Your task to perform on an android device: Open internet settings Image 0: 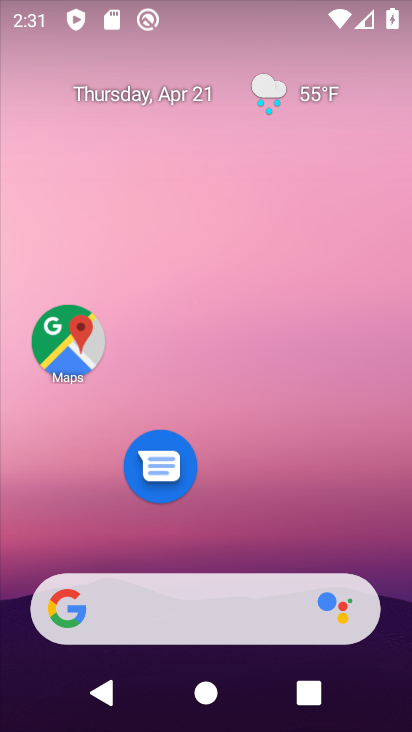
Step 0: drag from (237, 557) to (220, 57)
Your task to perform on an android device: Open internet settings Image 1: 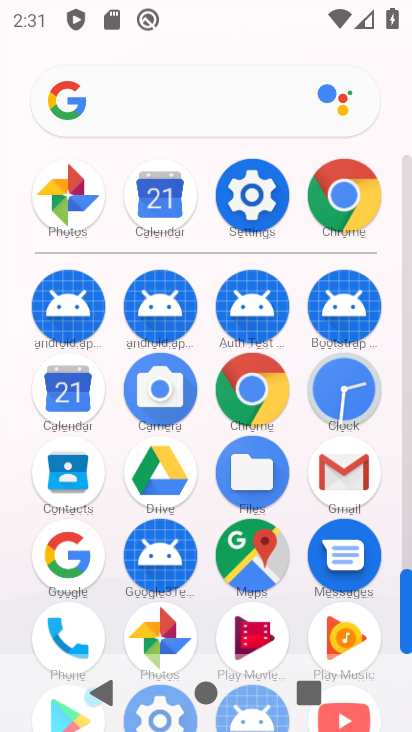
Step 1: click (264, 204)
Your task to perform on an android device: Open internet settings Image 2: 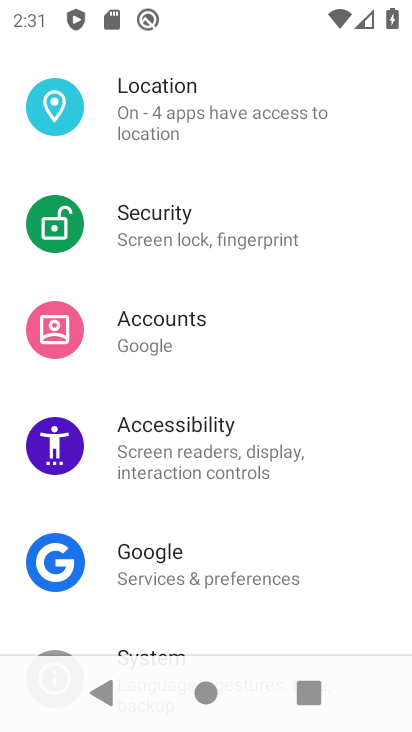
Step 2: click (264, 204)
Your task to perform on an android device: Open internet settings Image 3: 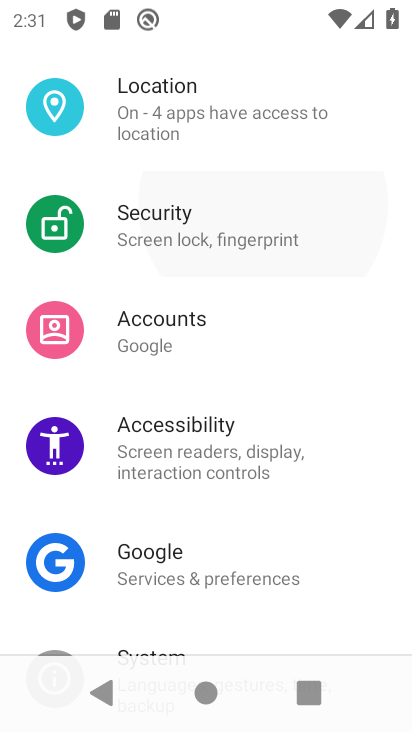
Step 3: drag from (248, 176) to (294, 611)
Your task to perform on an android device: Open internet settings Image 4: 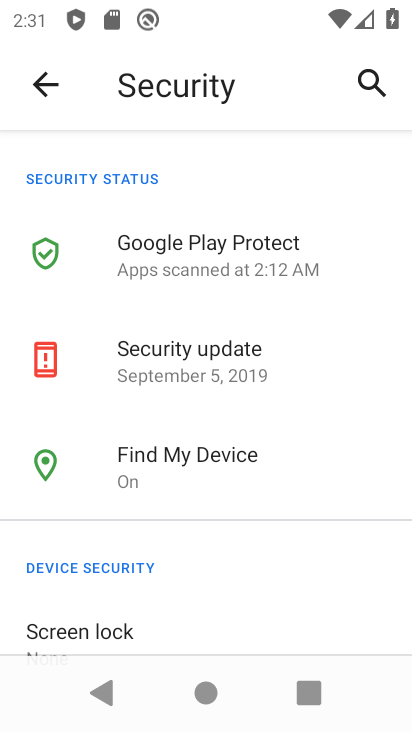
Step 4: press back button
Your task to perform on an android device: Open internet settings Image 5: 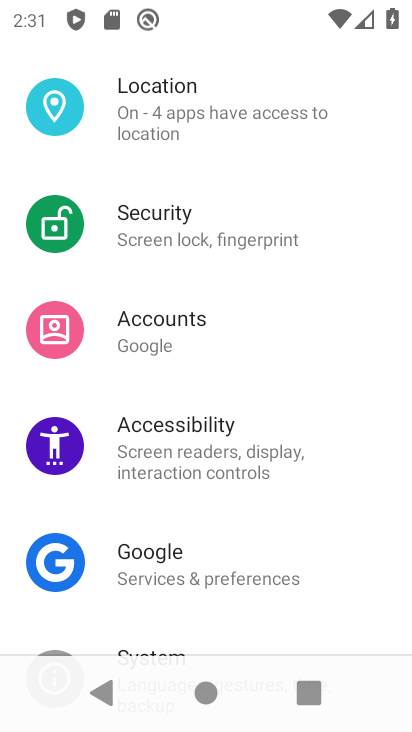
Step 5: drag from (306, 162) to (320, 564)
Your task to perform on an android device: Open internet settings Image 6: 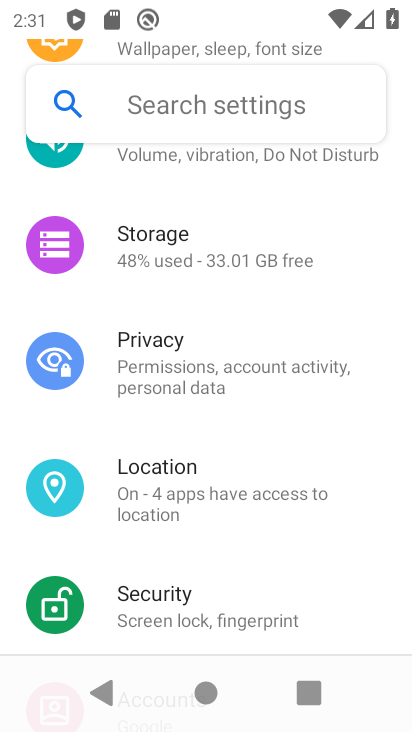
Step 6: drag from (305, 215) to (338, 620)
Your task to perform on an android device: Open internet settings Image 7: 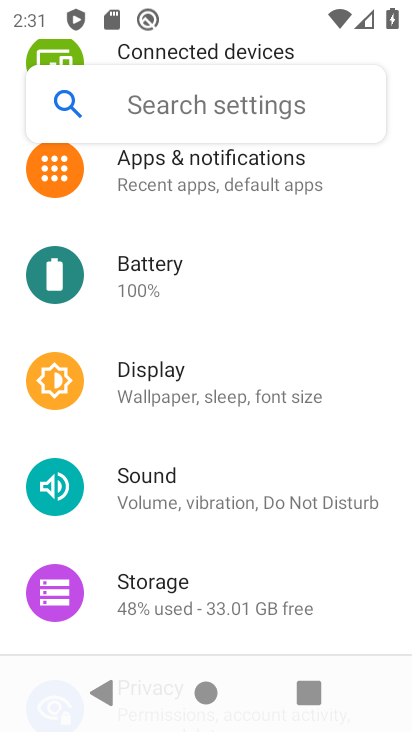
Step 7: drag from (334, 182) to (372, 584)
Your task to perform on an android device: Open internet settings Image 8: 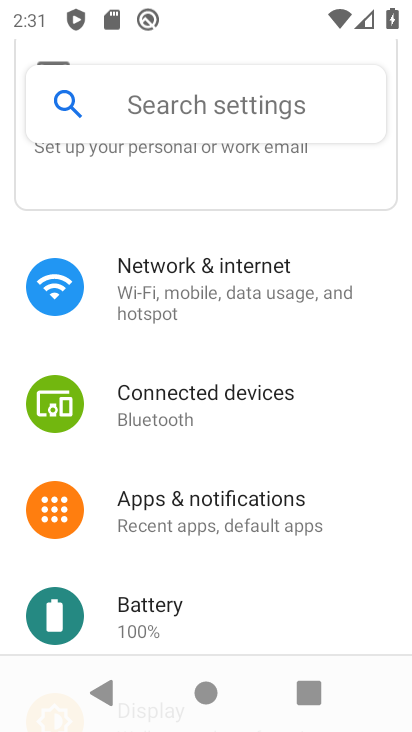
Step 8: click (264, 307)
Your task to perform on an android device: Open internet settings Image 9: 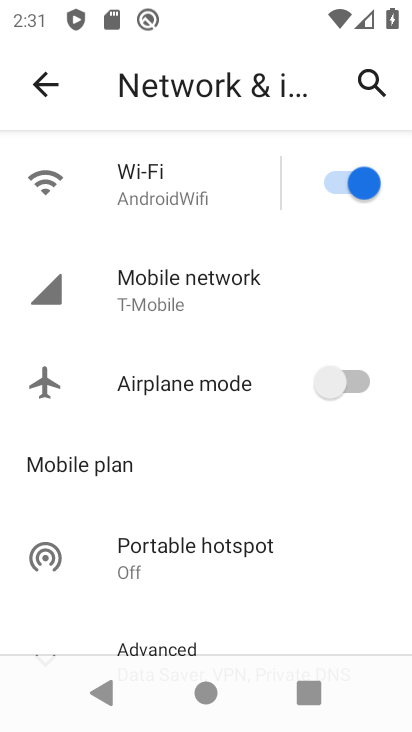
Step 9: task complete